Your task to perform on an android device: change the clock display to analog Image 0: 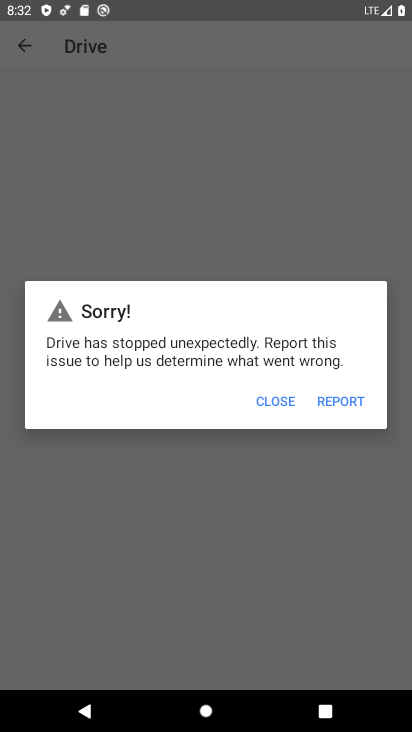
Step 0: press home button
Your task to perform on an android device: change the clock display to analog Image 1: 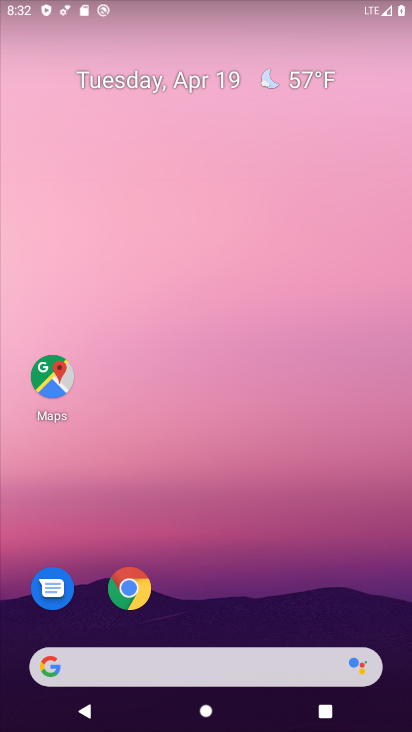
Step 1: drag from (288, 583) to (234, 35)
Your task to perform on an android device: change the clock display to analog Image 2: 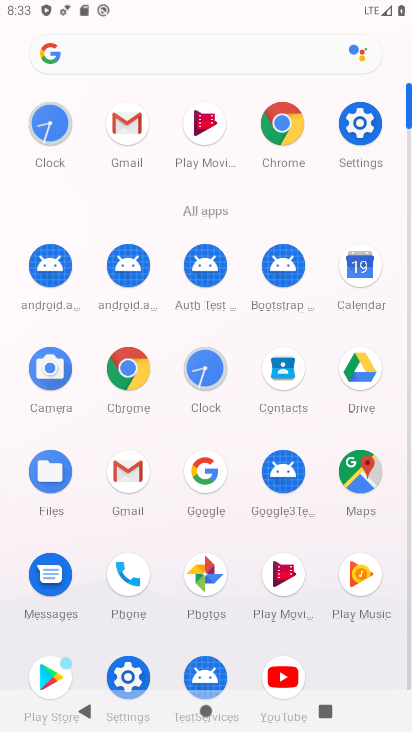
Step 2: click (199, 368)
Your task to perform on an android device: change the clock display to analog Image 3: 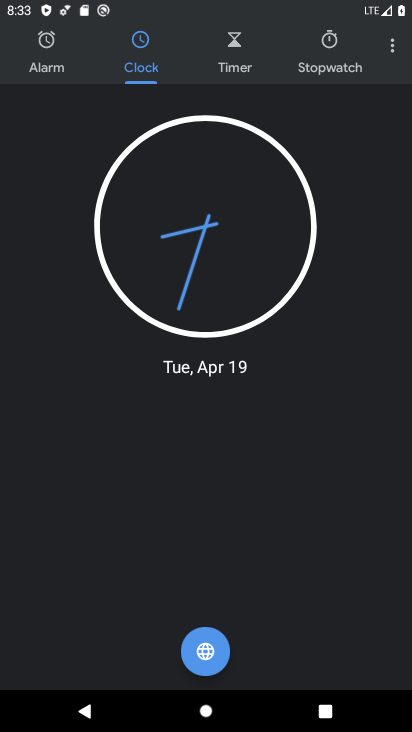
Step 3: click (390, 49)
Your task to perform on an android device: change the clock display to analog Image 4: 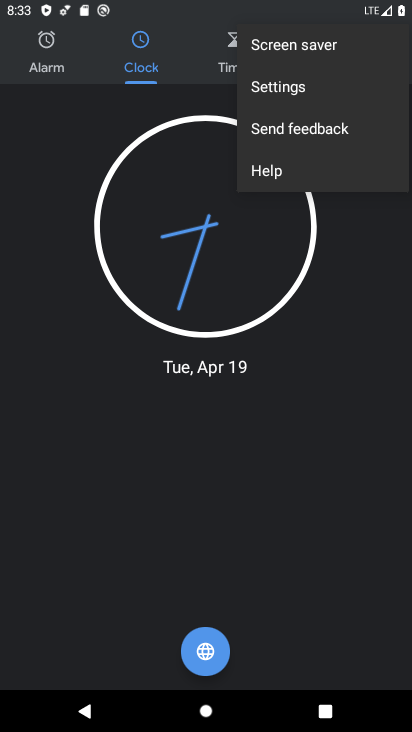
Step 4: click (374, 90)
Your task to perform on an android device: change the clock display to analog Image 5: 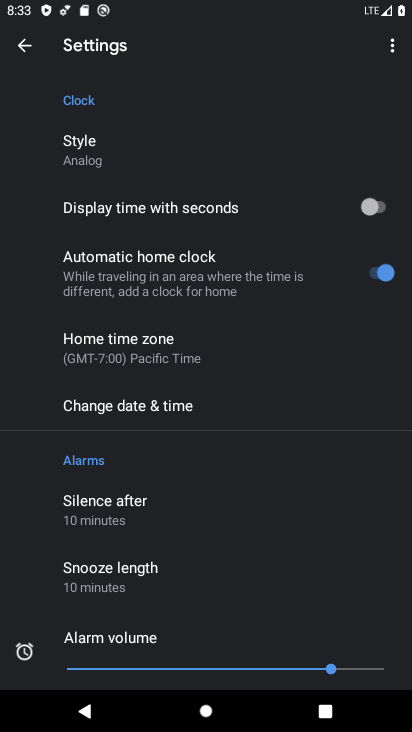
Step 5: click (94, 153)
Your task to perform on an android device: change the clock display to analog Image 6: 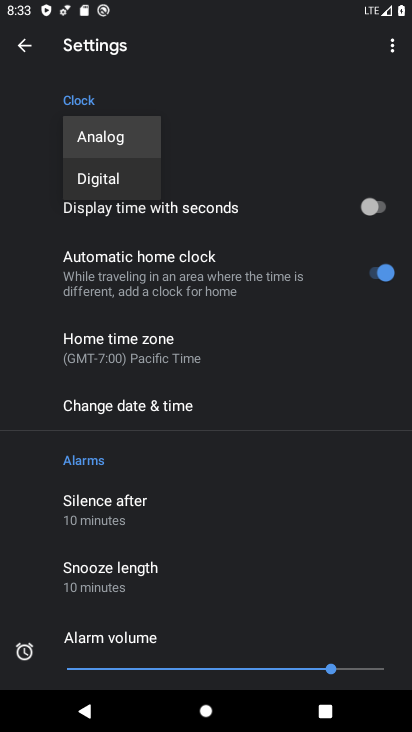
Step 6: click (125, 140)
Your task to perform on an android device: change the clock display to analog Image 7: 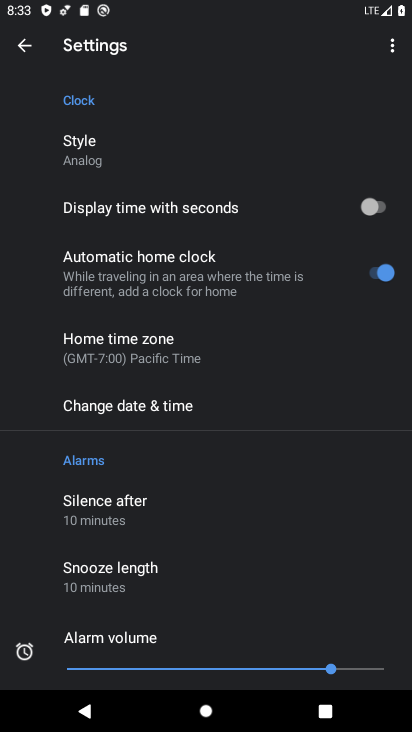
Step 7: task complete